Your task to perform on an android device: Open my contact list Image 0: 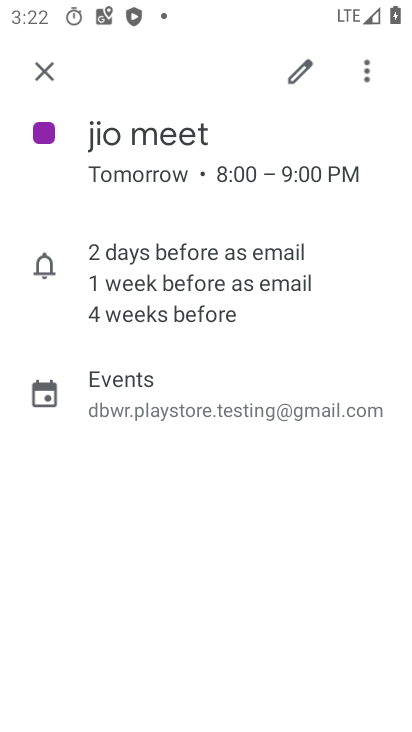
Step 0: press home button
Your task to perform on an android device: Open my contact list Image 1: 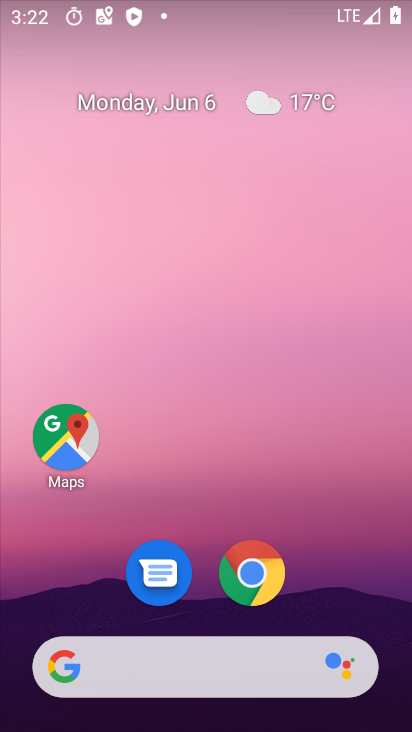
Step 1: drag from (362, 555) to (369, 218)
Your task to perform on an android device: Open my contact list Image 2: 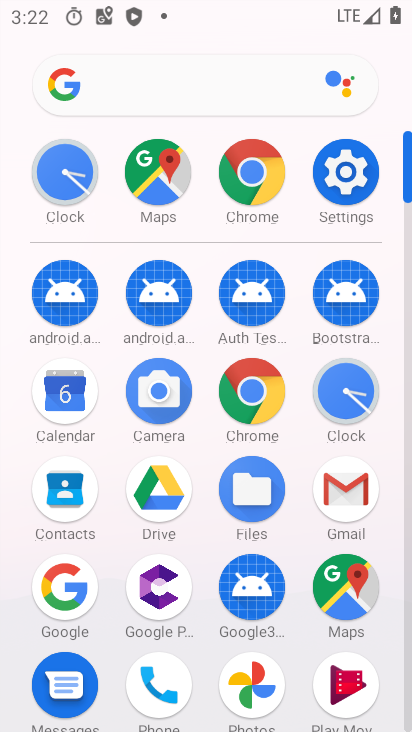
Step 2: click (69, 504)
Your task to perform on an android device: Open my contact list Image 3: 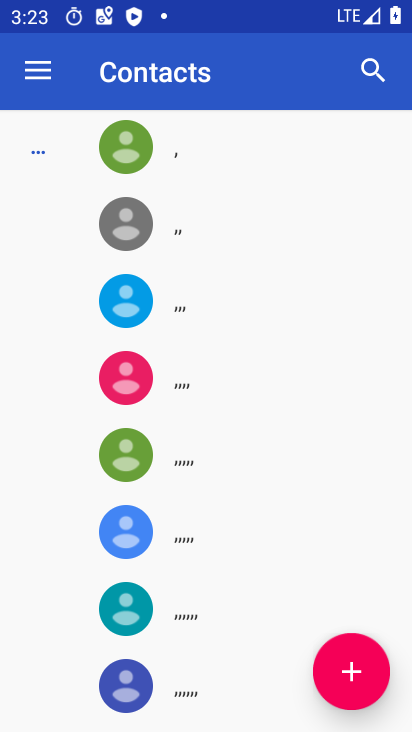
Step 3: task complete